Your task to perform on an android device: Do I have any events today? Image 0: 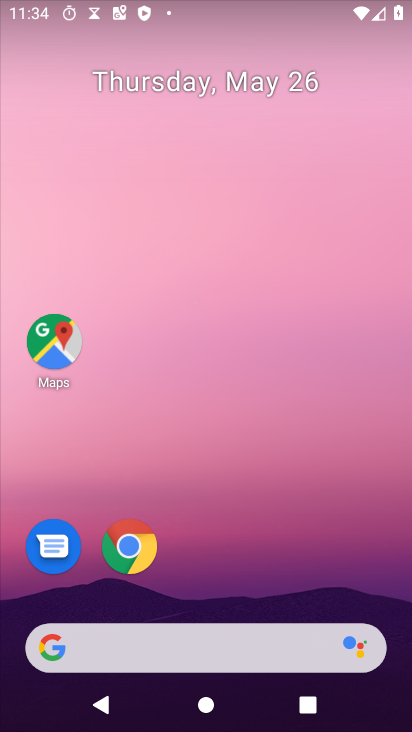
Step 0: drag from (374, 566) to (375, 145)
Your task to perform on an android device: Do I have any events today? Image 1: 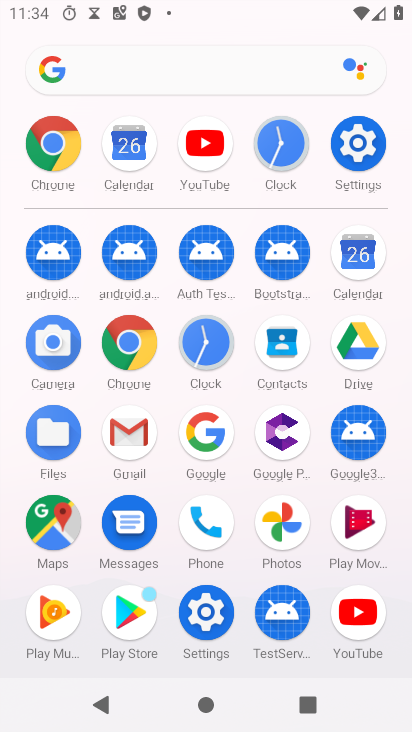
Step 1: click (118, 322)
Your task to perform on an android device: Do I have any events today? Image 2: 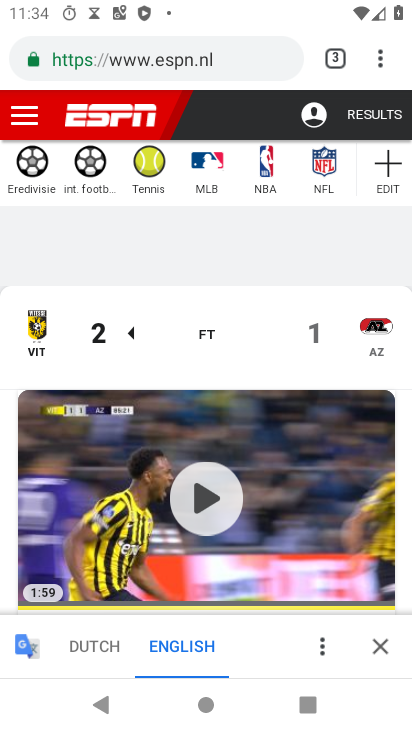
Step 2: click (200, 59)
Your task to perform on an android device: Do I have any events today? Image 3: 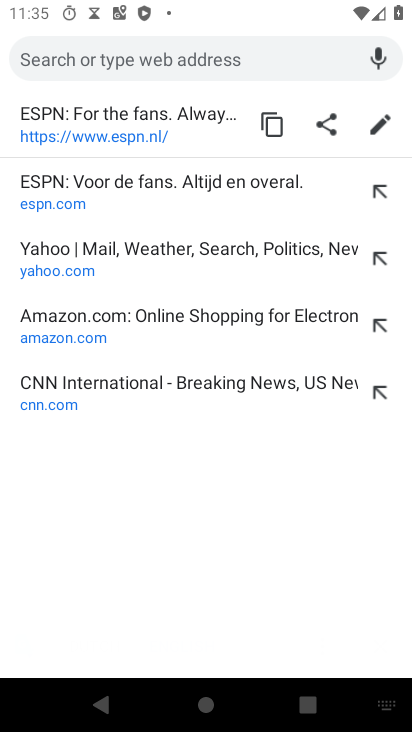
Step 3: type "do i have any event today"
Your task to perform on an android device: Do I have any events today? Image 4: 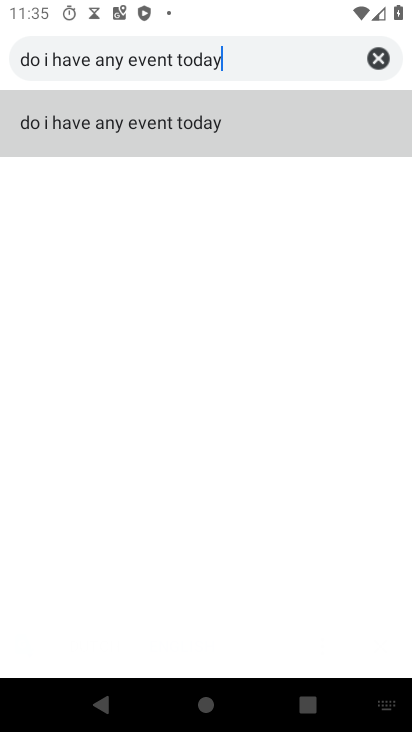
Step 4: click (191, 120)
Your task to perform on an android device: Do I have any events today? Image 5: 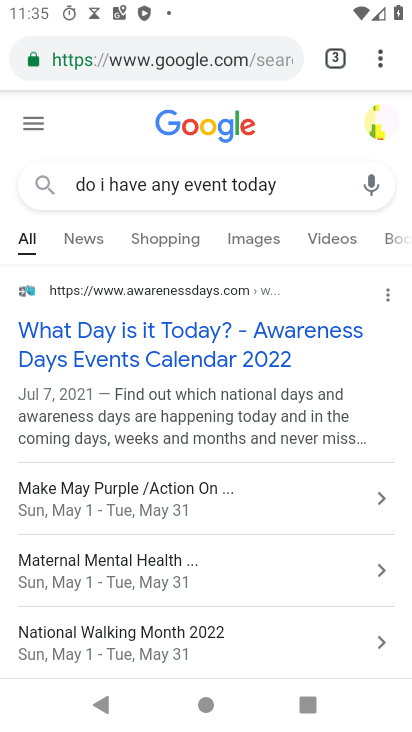
Step 5: task complete